Your task to perform on an android device: open the mobile data screen to see how much data has been used Image 0: 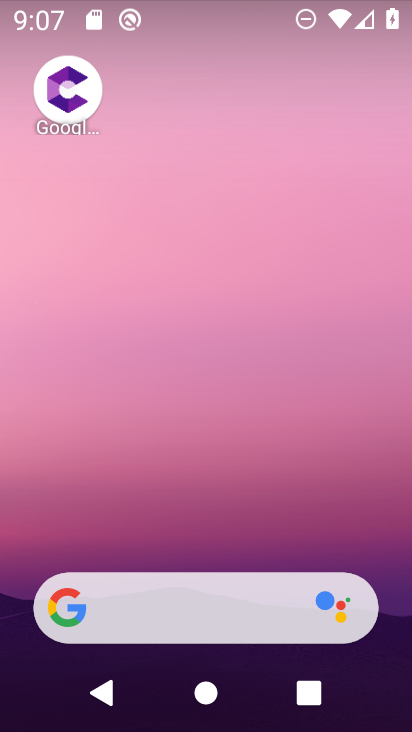
Step 0: drag from (208, 342) to (213, 142)
Your task to perform on an android device: open the mobile data screen to see how much data has been used Image 1: 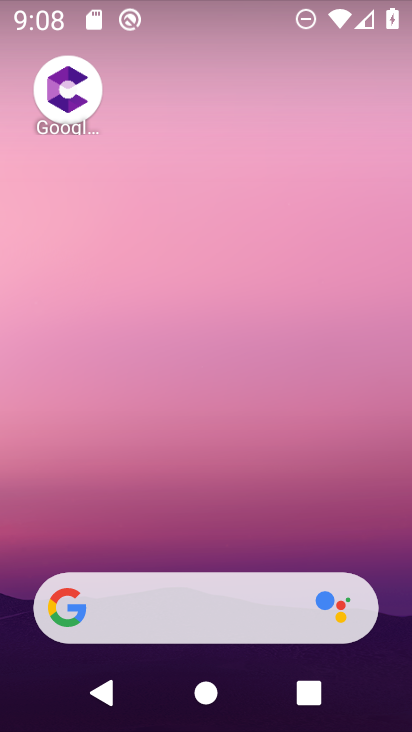
Step 1: drag from (214, 507) to (216, 6)
Your task to perform on an android device: open the mobile data screen to see how much data has been used Image 2: 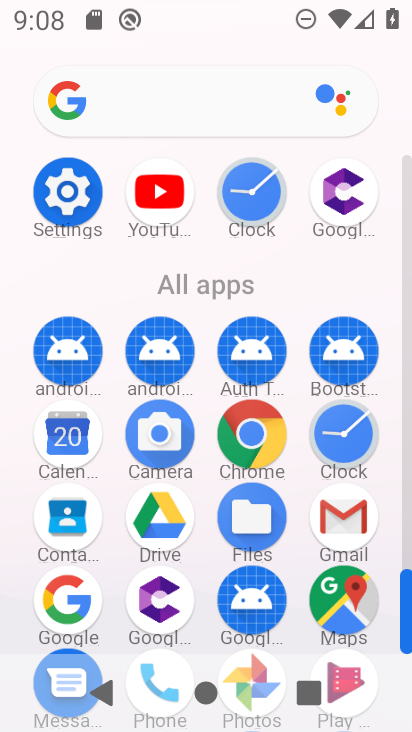
Step 2: click (66, 193)
Your task to perform on an android device: open the mobile data screen to see how much data has been used Image 3: 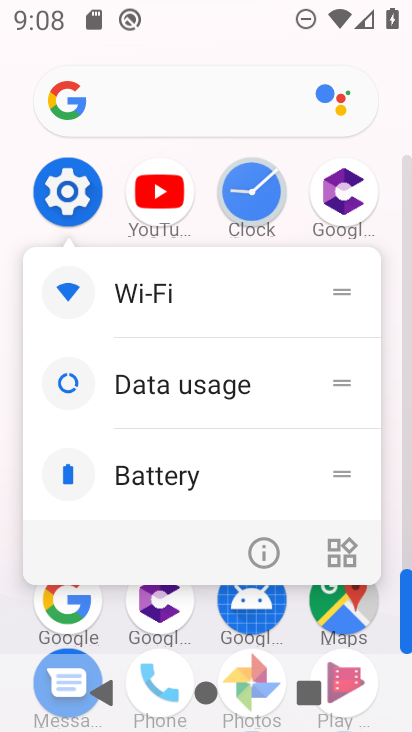
Step 3: click (66, 193)
Your task to perform on an android device: open the mobile data screen to see how much data has been used Image 4: 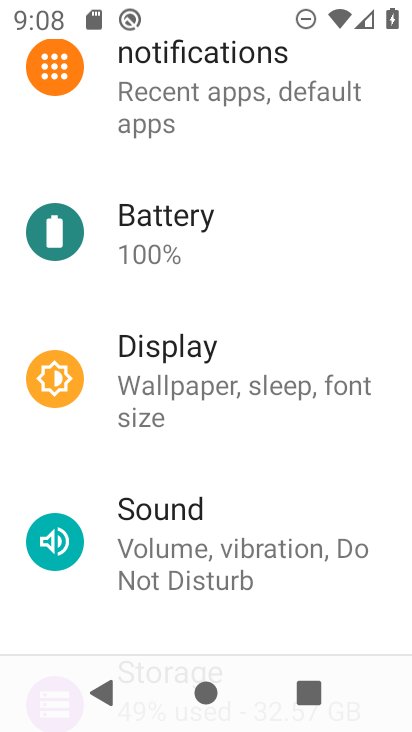
Step 4: drag from (227, 157) to (289, 594)
Your task to perform on an android device: open the mobile data screen to see how much data has been used Image 5: 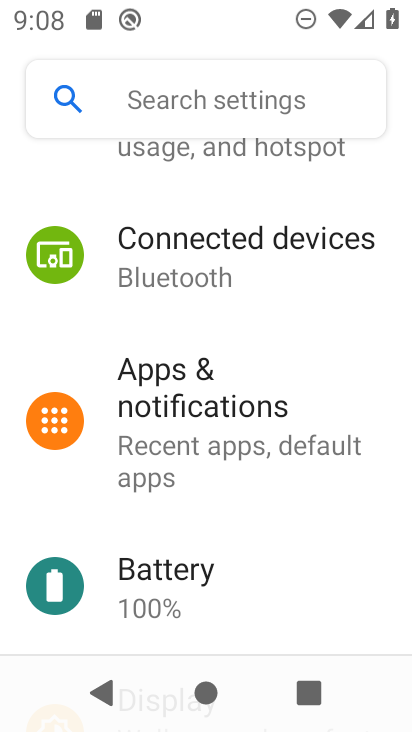
Step 5: drag from (167, 293) to (208, 607)
Your task to perform on an android device: open the mobile data screen to see how much data has been used Image 6: 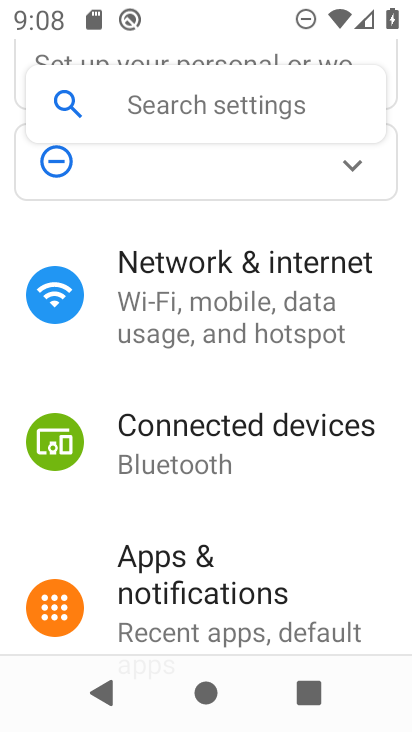
Step 6: click (196, 309)
Your task to perform on an android device: open the mobile data screen to see how much data has been used Image 7: 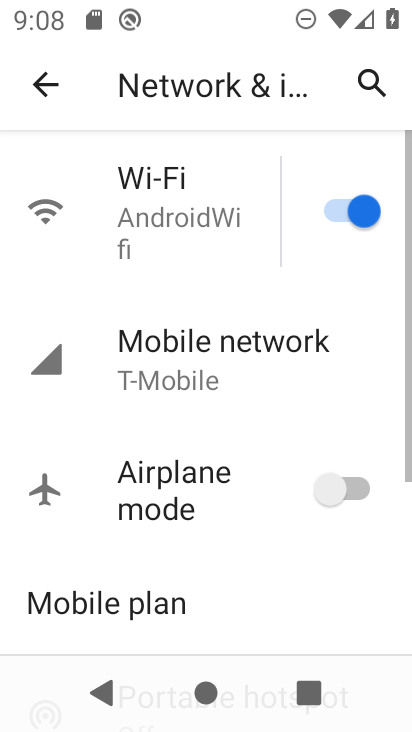
Step 7: click (203, 375)
Your task to perform on an android device: open the mobile data screen to see how much data has been used Image 8: 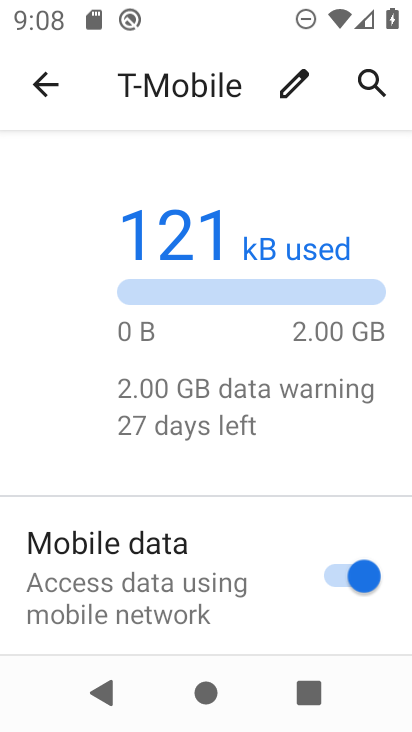
Step 8: task complete